Your task to perform on an android device: Open my contact list Image 0: 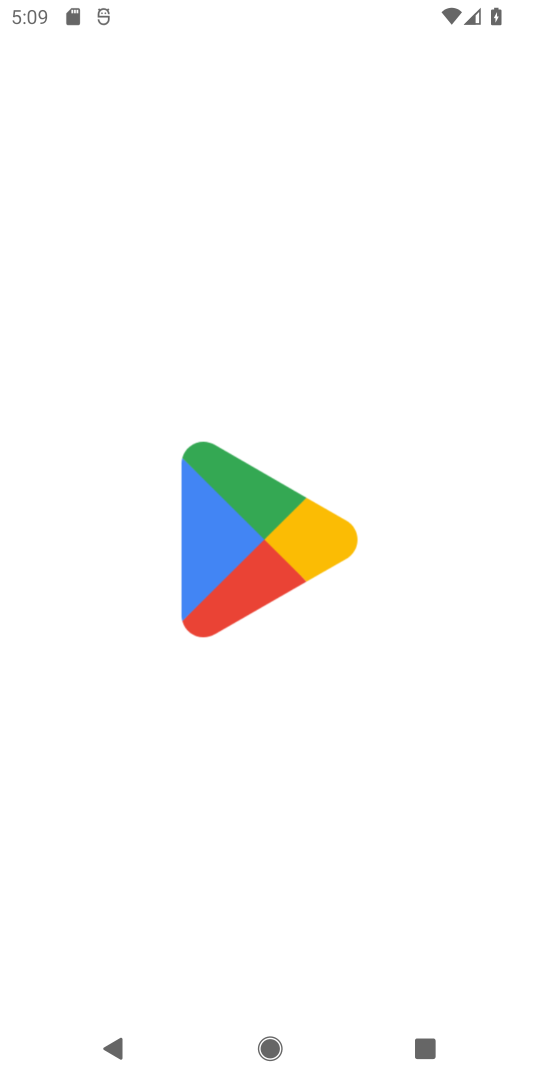
Step 0: press home button
Your task to perform on an android device: Open my contact list Image 1: 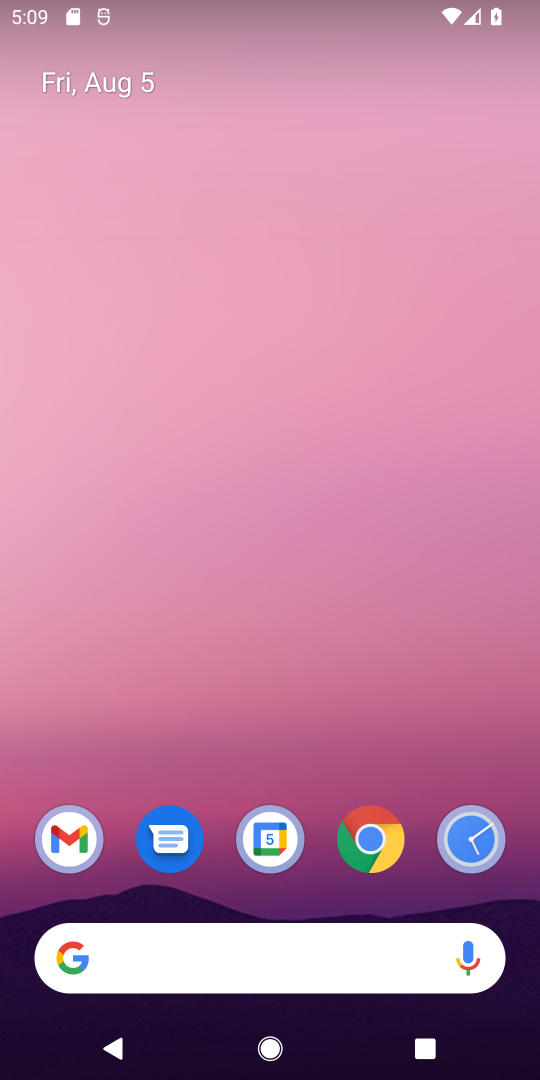
Step 1: drag from (283, 747) to (223, 56)
Your task to perform on an android device: Open my contact list Image 2: 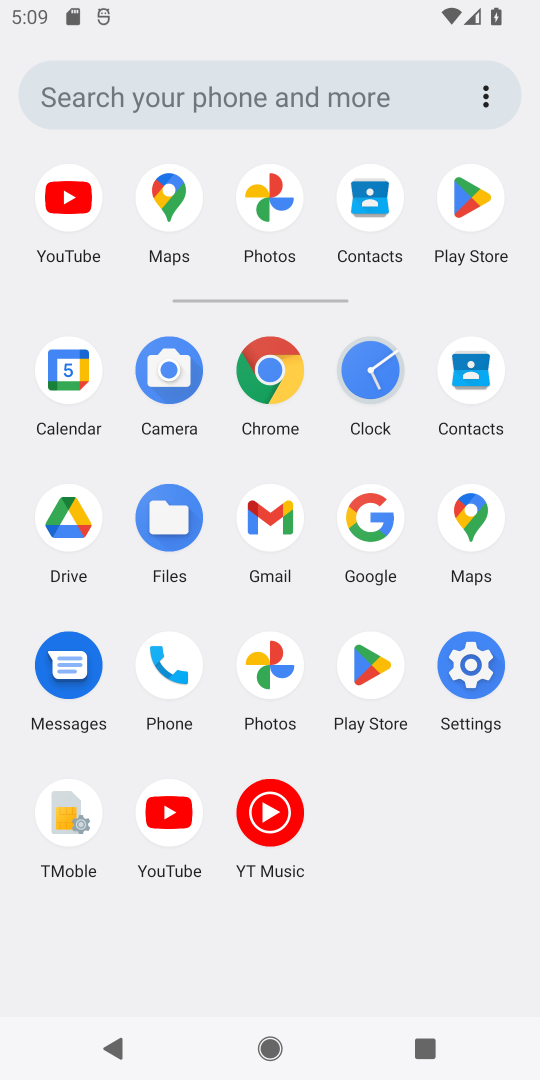
Step 2: click (466, 399)
Your task to perform on an android device: Open my contact list Image 3: 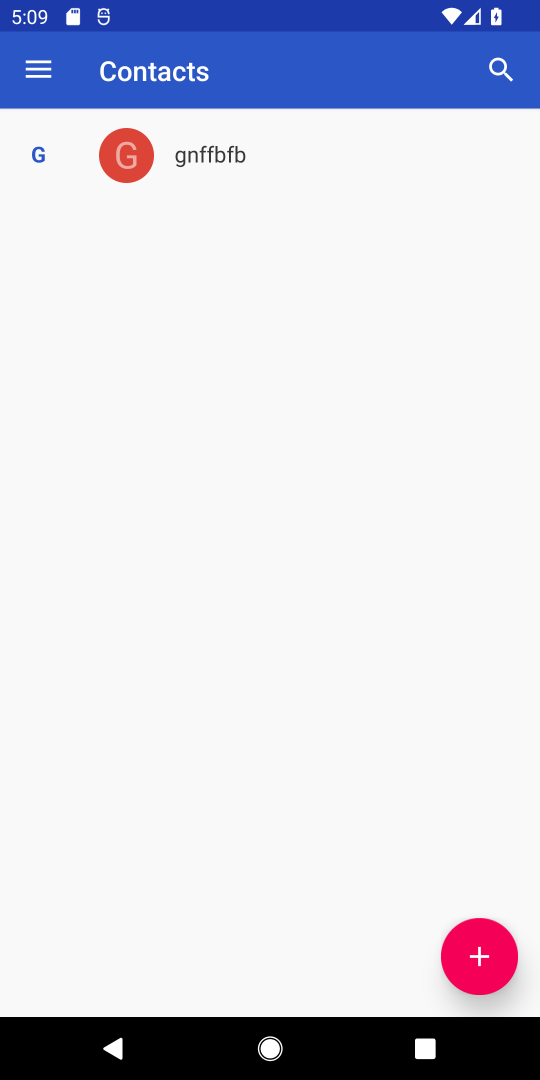
Step 3: task complete